Your task to perform on an android device: Show the shopping cart on walmart.com. Image 0: 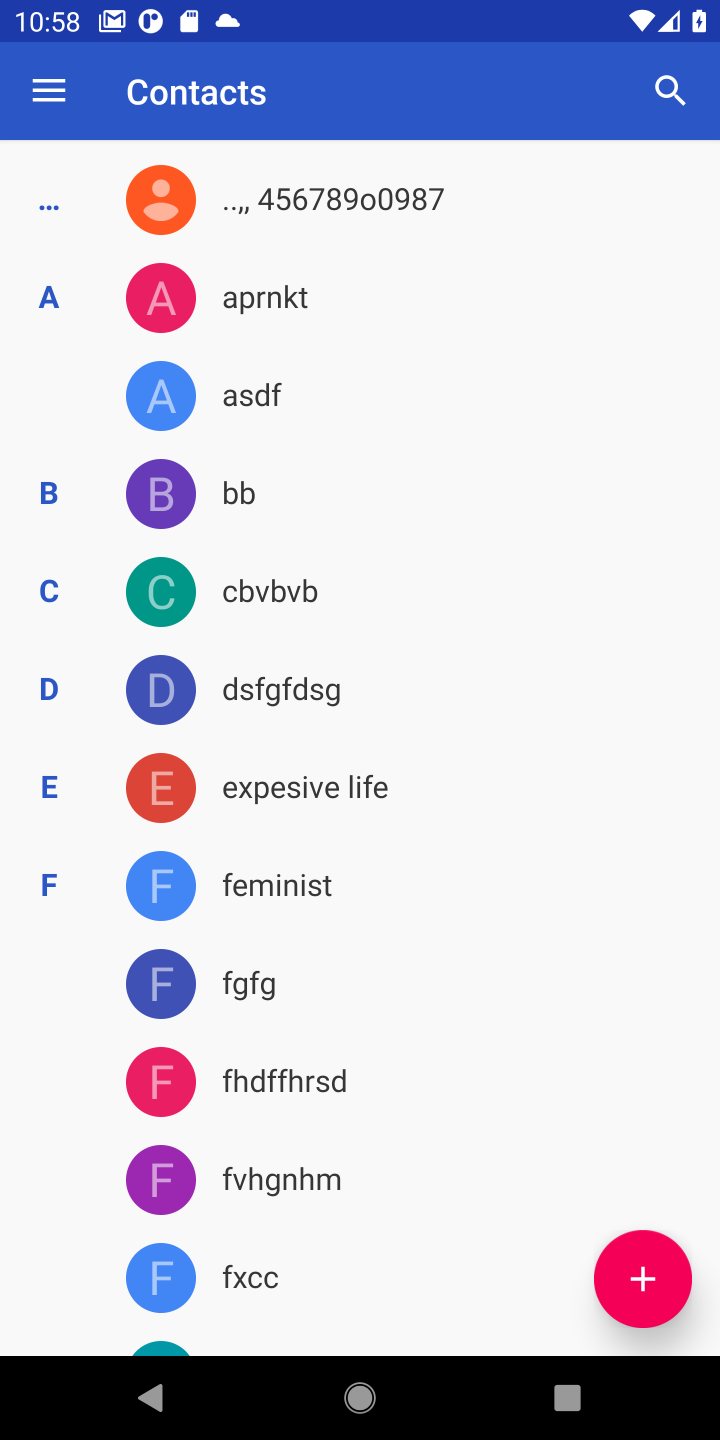
Step 0: press home button
Your task to perform on an android device: Show the shopping cart on walmart.com. Image 1: 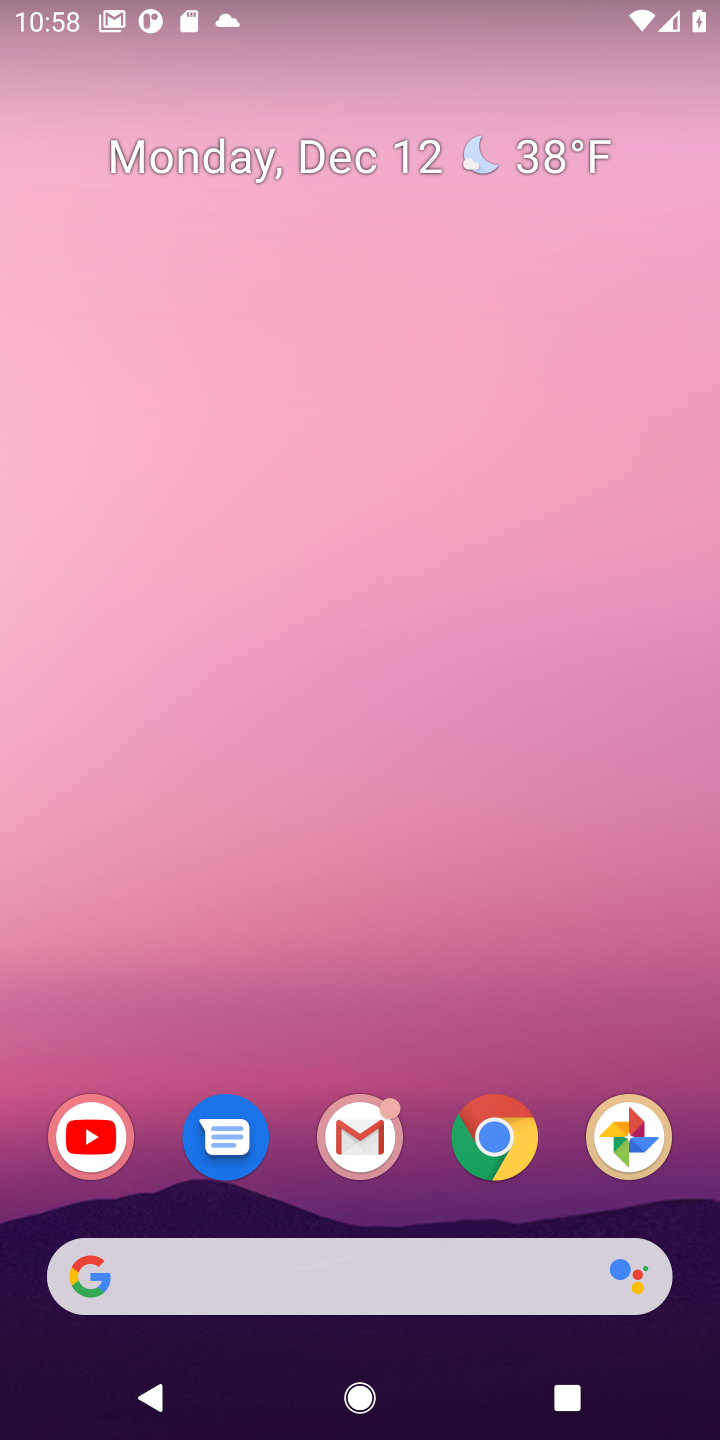
Step 1: click (446, 1259)
Your task to perform on an android device: Show the shopping cart on walmart.com. Image 2: 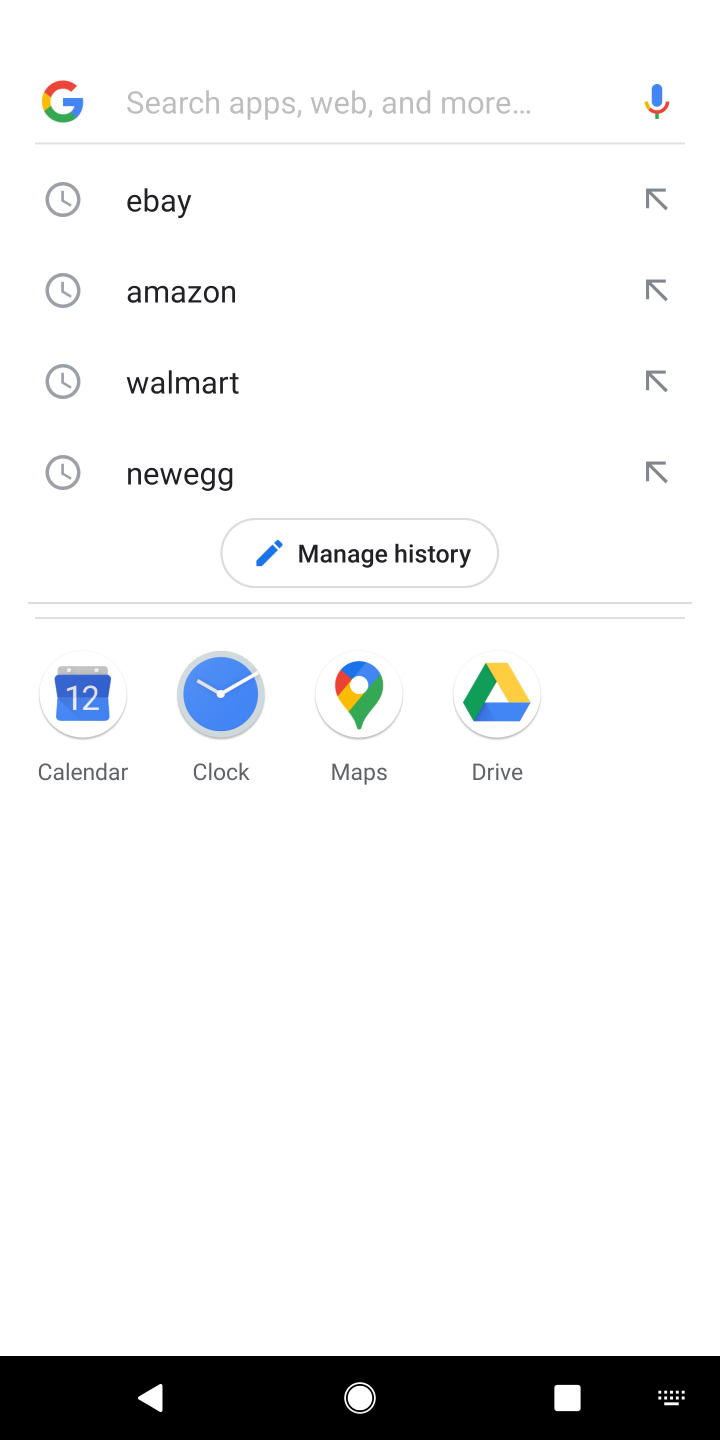
Step 2: click (202, 411)
Your task to perform on an android device: Show the shopping cart on walmart.com. Image 3: 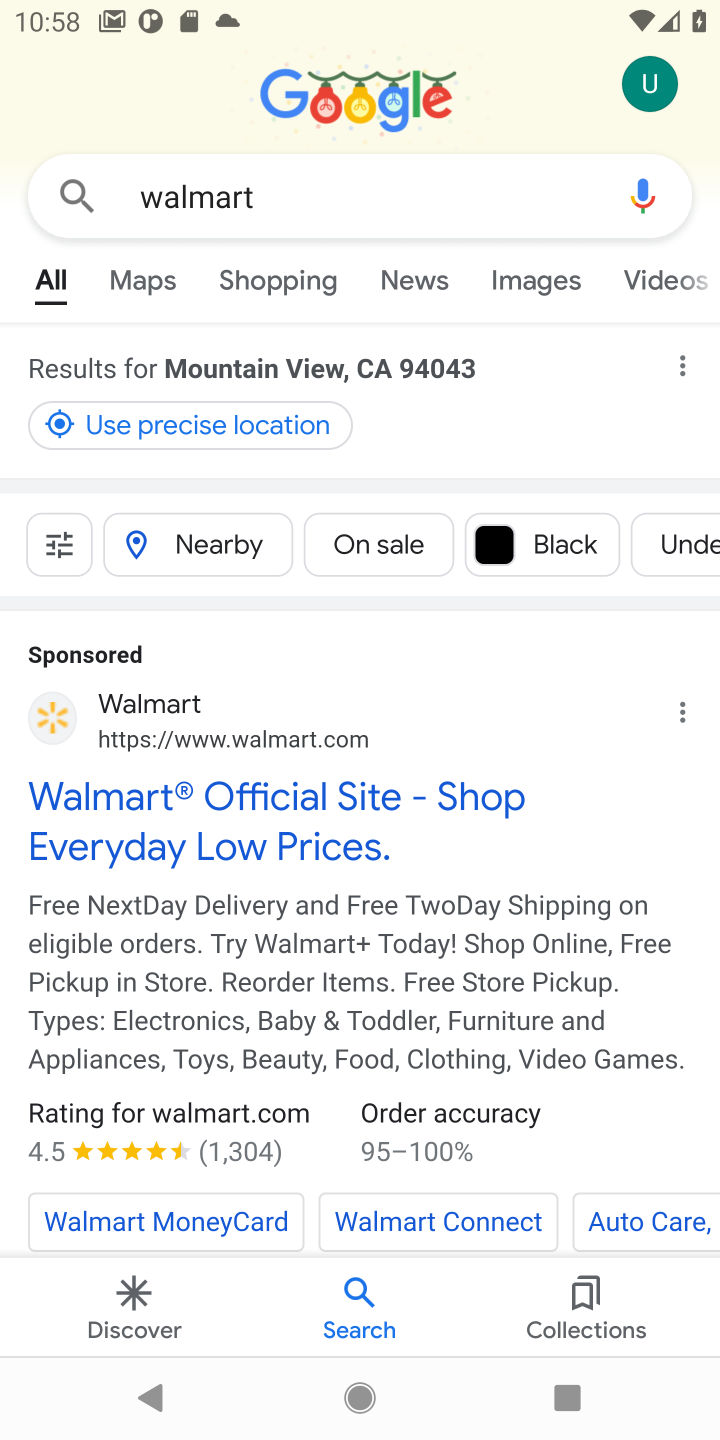
Step 3: click (96, 800)
Your task to perform on an android device: Show the shopping cart on walmart.com. Image 4: 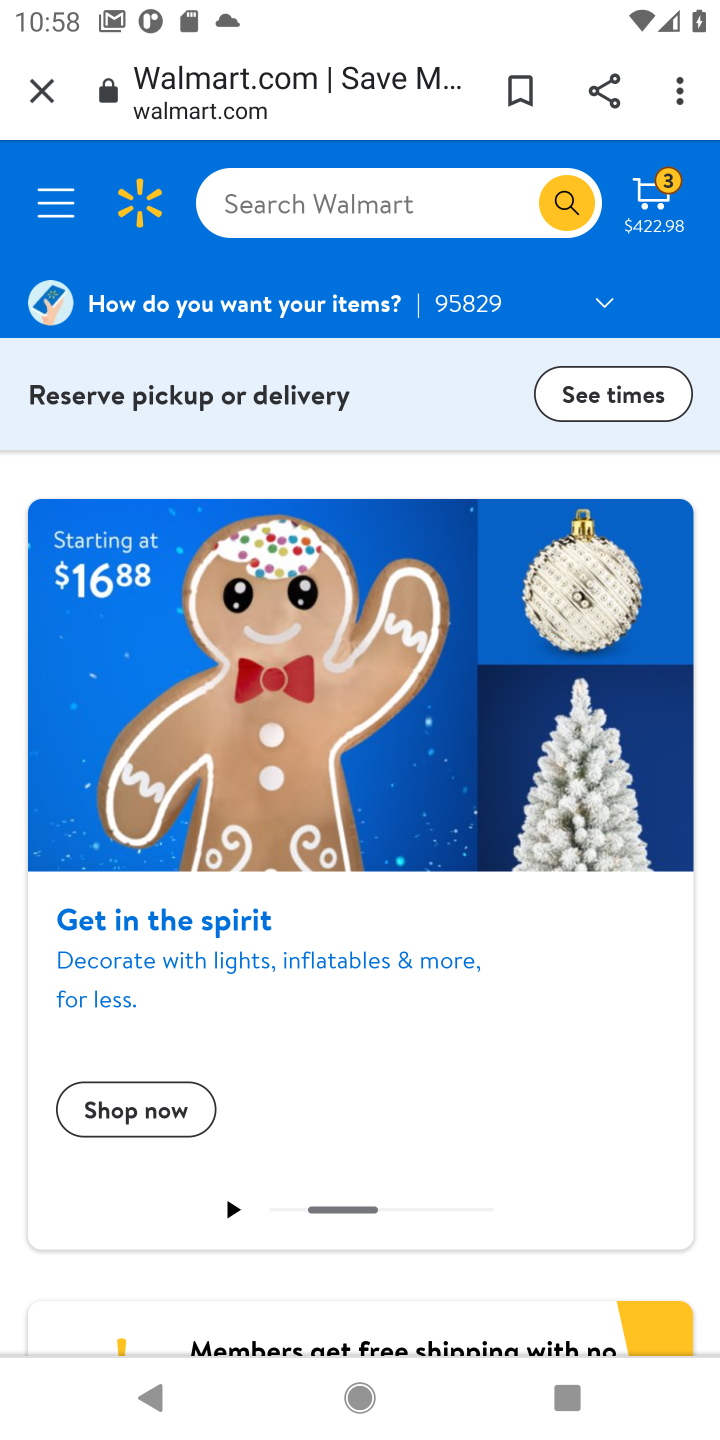
Step 4: click (343, 192)
Your task to perform on an android device: Show the shopping cart on walmart.com. Image 5: 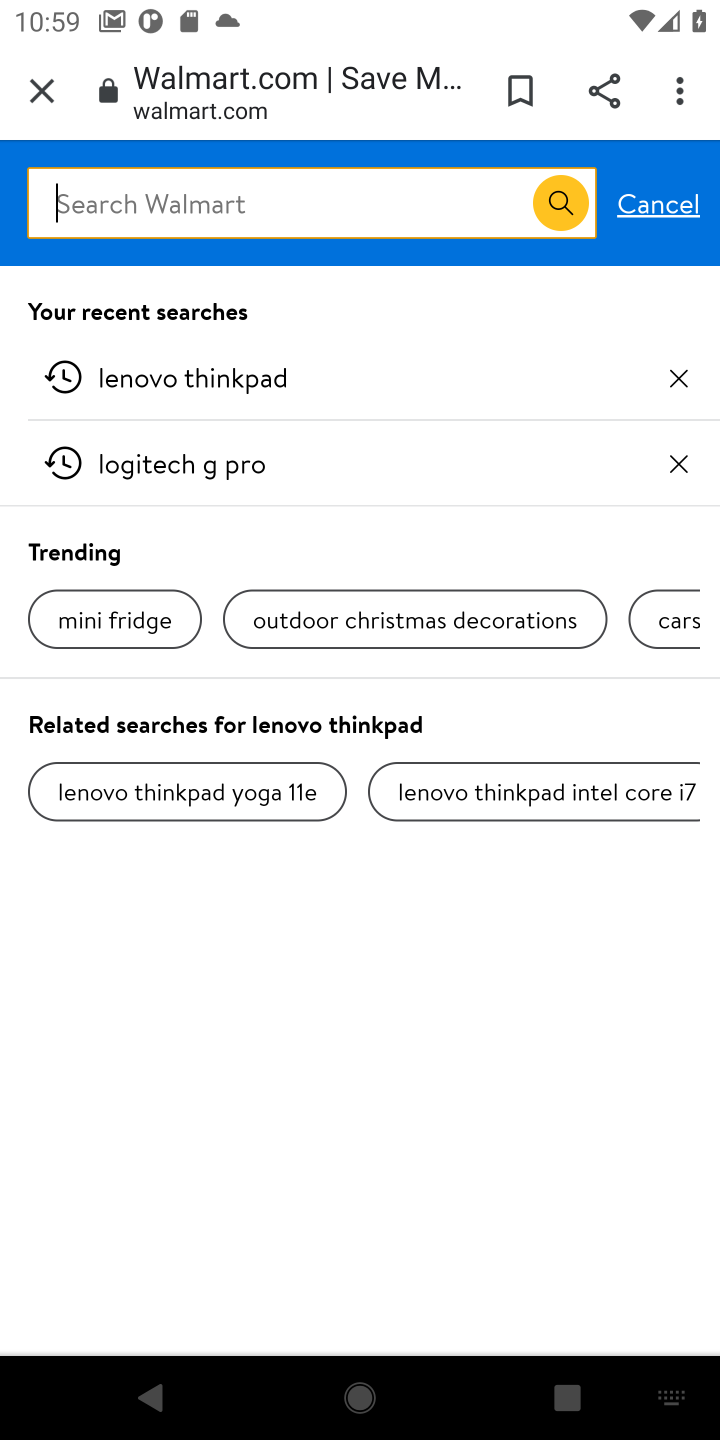
Step 5: click (672, 225)
Your task to perform on an android device: Show the shopping cart on walmart.com. Image 6: 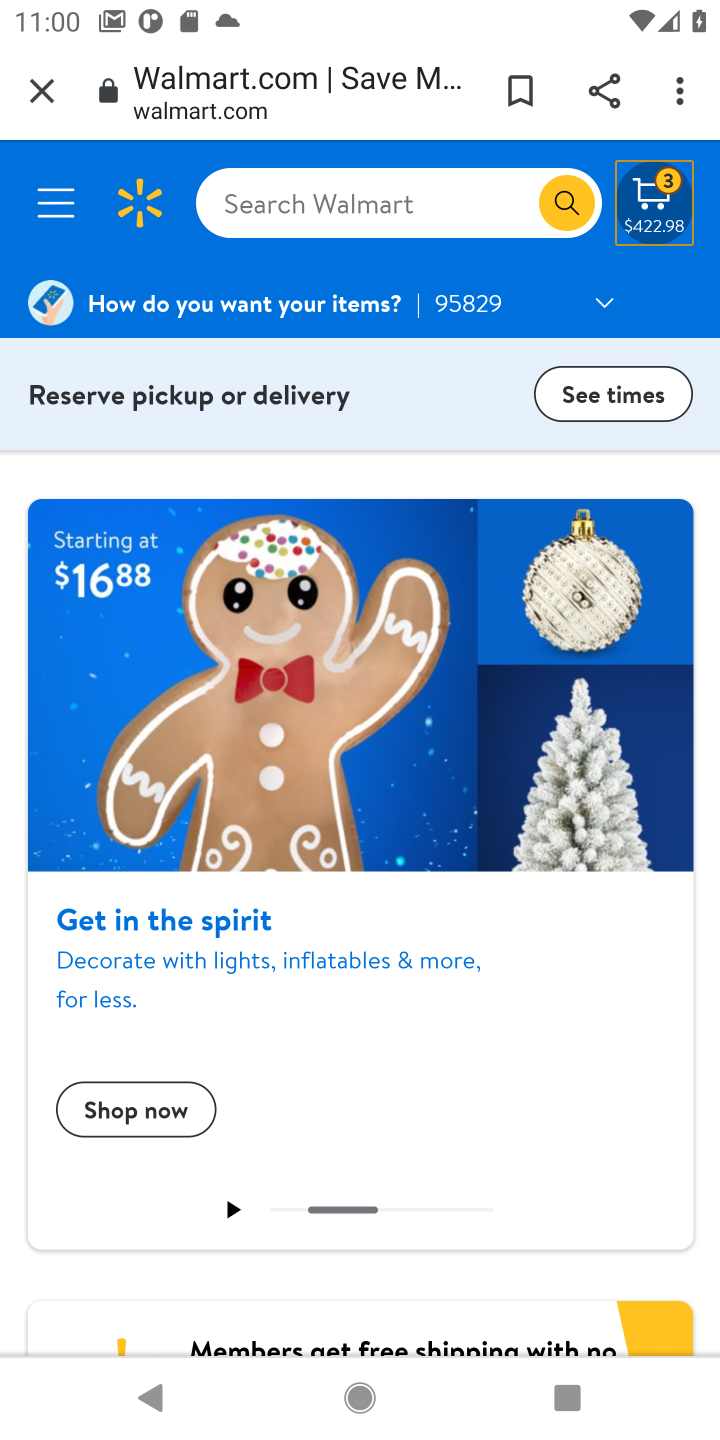
Step 6: click (665, 200)
Your task to perform on an android device: Show the shopping cart on walmart.com. Image 7: 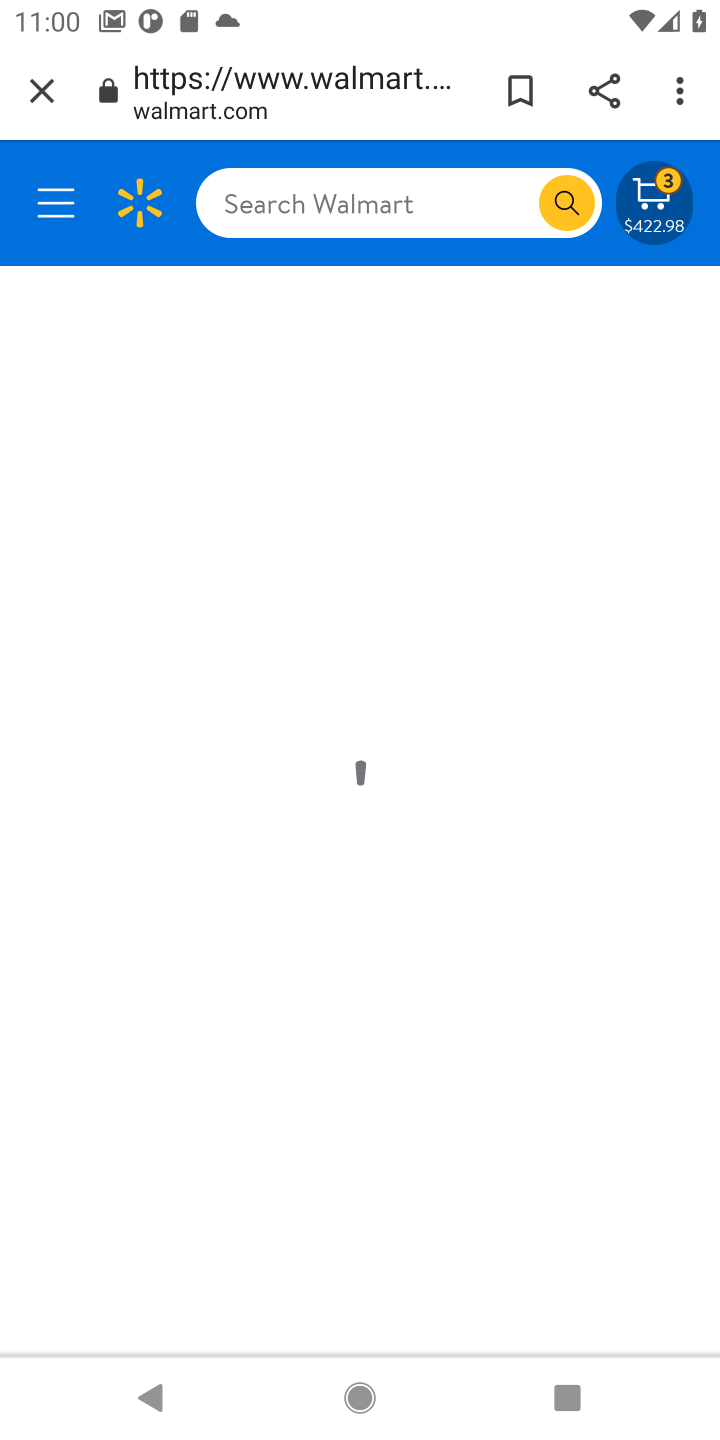
Step 7: task complete